Your task to perform on an android device: see sites visited before in the chrome app Image 0: 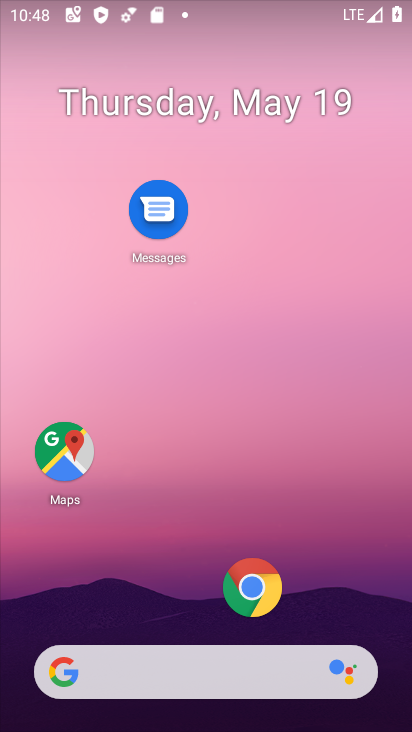
Step 0: click (246, 593)
Your task to perform on an android device: see sites visited before in the chrome app Image 1: 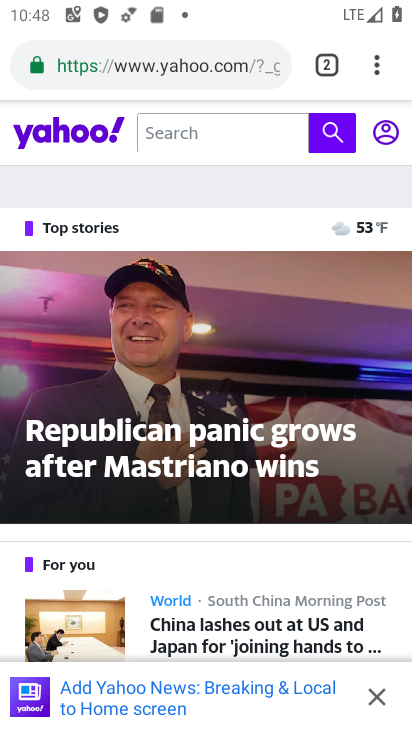
Step 1: click (369, 56)
Your task to perform on an android device: see sites visited before in the chrome app Image 2: 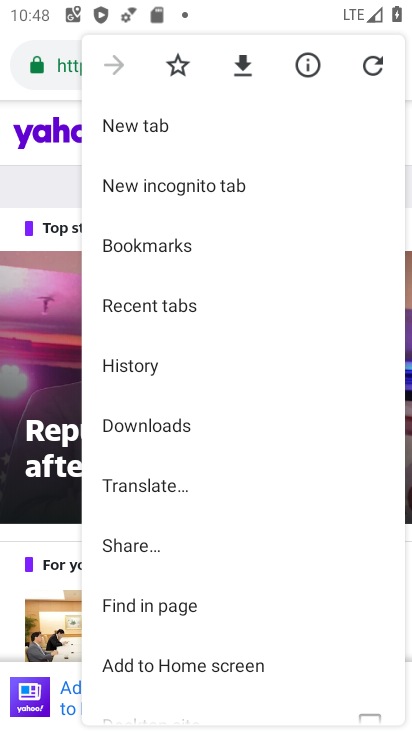
Step 2: click (171, 374)
Your task to perform on an android device: see sites visited before in the chrome app Image 3: 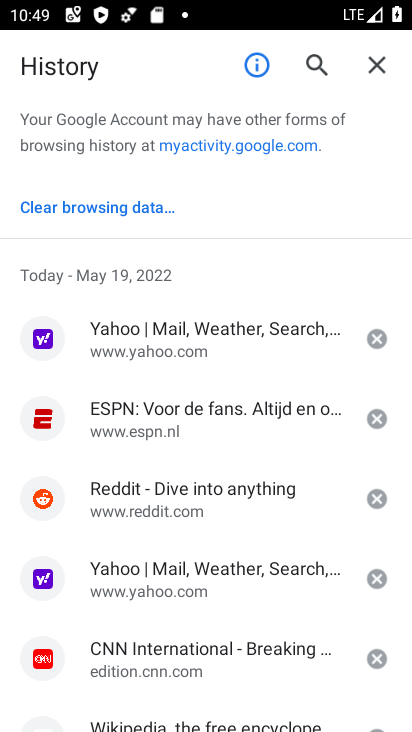
Step 3: task complete